Your task to perform on an android device: Open Wikipedia Image 0: 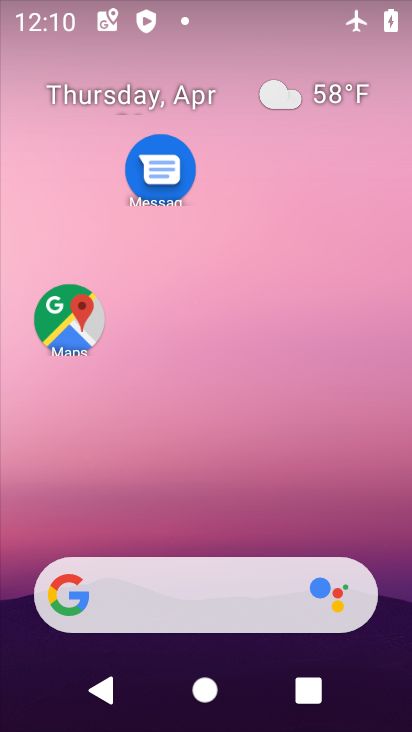
Step 0: drag from (225, 496) to (302, 9)
Your task to perform on an android device: Open Wikipedia Image 1: 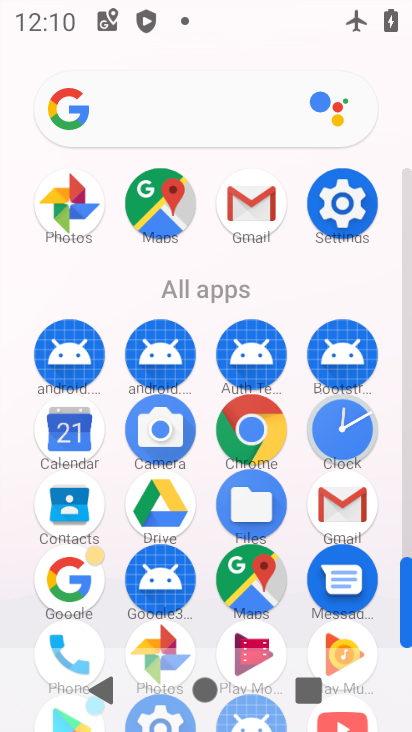
Step 1: click (256, 440)
Your task to perform on an android device: Open Wikipedia Image 2: 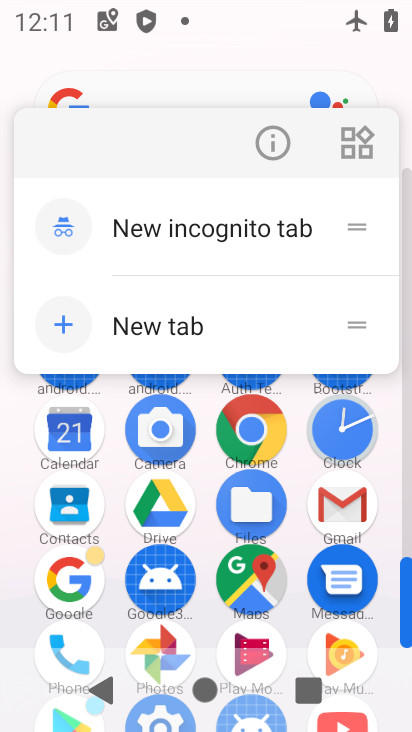
Step 2: click (274, 151)
Your task to perform on an android device: Open Wikipedia Image 3: 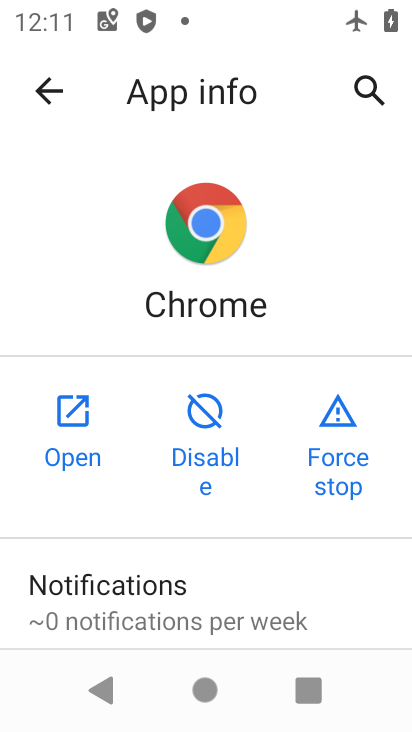
Step 3: click (90, 405)
Your task to perform on an android device: Open Wikipedia Image 4: 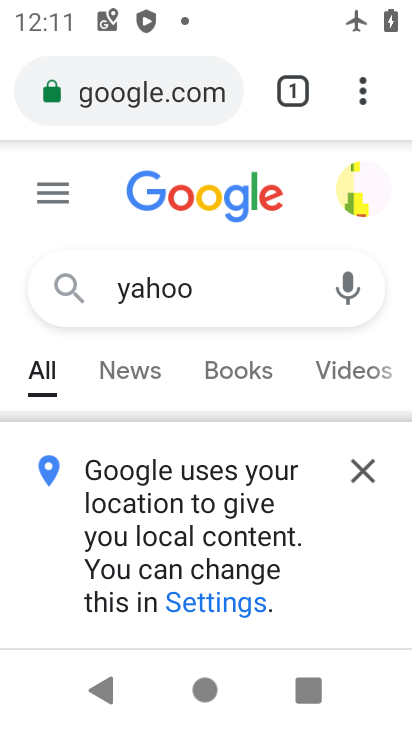
Step 4: click (232, 294)
Your task to perform on an android device: Open Wikipedia Image 5: 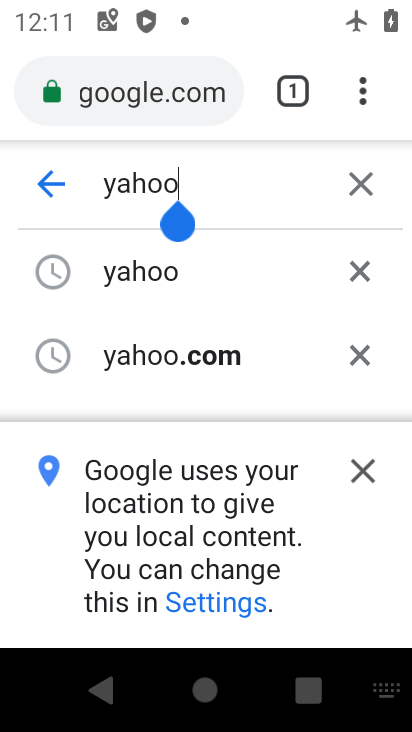
Step 5: click (358, 192)
Your task to perform on an android device: Open Wikipedia Image 6: 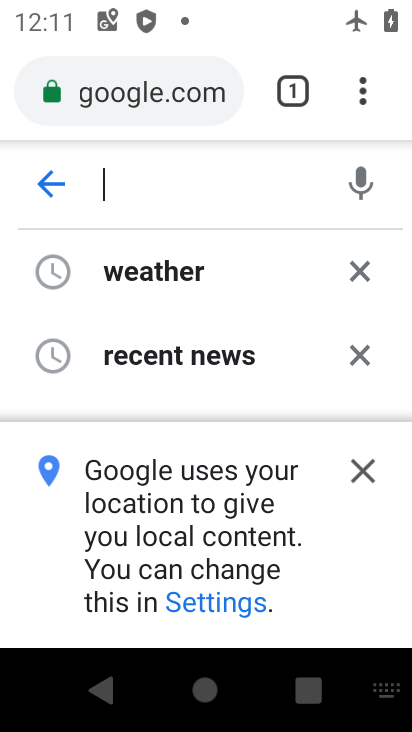
Step 6: type "wikipedia"
Your task to perform on an android device: Open Wikipedia Image 7: 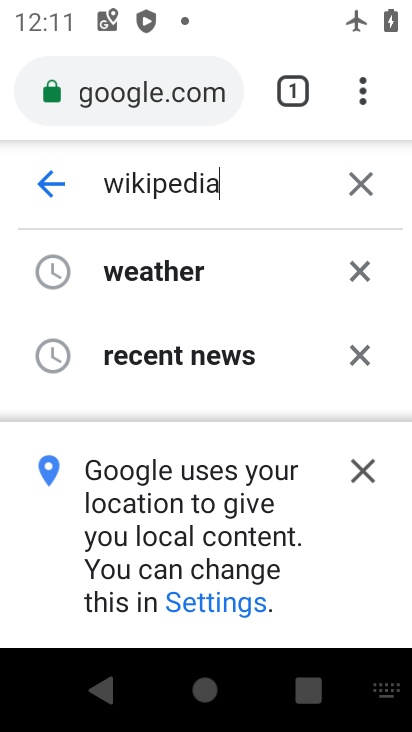
Step 7: task complete